Your task to perform on an android device: snooze an email in the gmail app Image 0: 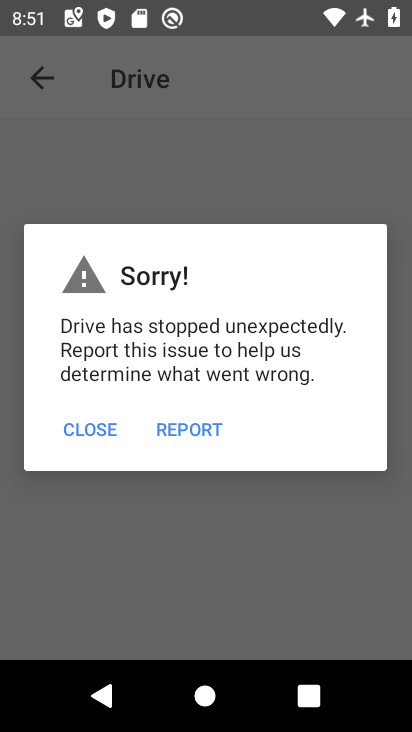
Step 0: press home button
Your task to perform on an android device: snooze an email in the gmail app Image 1: 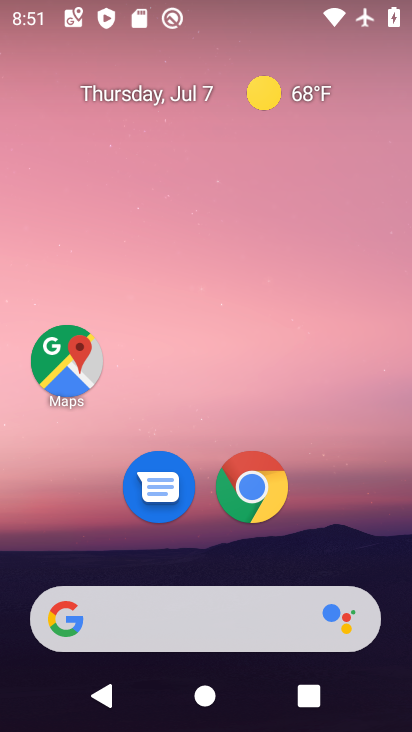
Step 1: drag from (231, 572) to (170, 5)
Your task to perform on an android device: snooze an email in the gmail app Image 2: 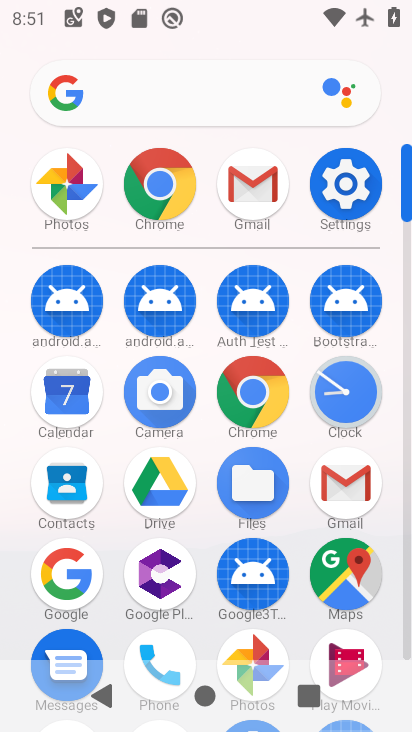
Step 2: click (347, 488)
Your task to perform on an android device: snooze an email in the gmail app Image 3: 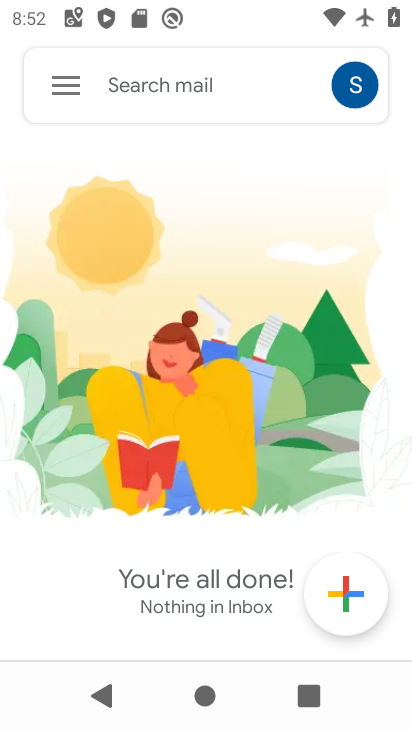
Step 3: drag from (168, 221) to (190, 425)
Your task to perform on an android device: snooze an email in the gmail app Image 4: 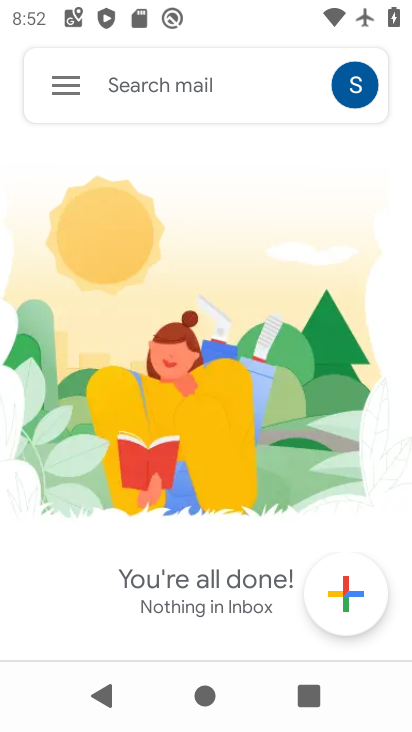
Step 4: click (55, 86)
Your task to perform on an android device: snooze an email in the gmail app Image 5: 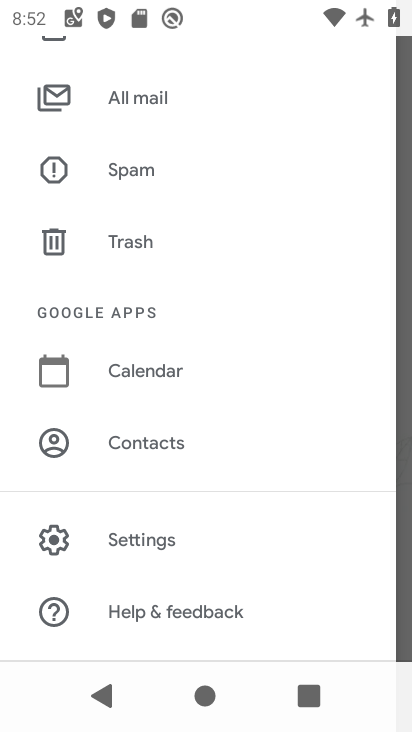
Step 5: task complete